Your task to perform on an android device: turn on javascript in the chrome app Image 0: 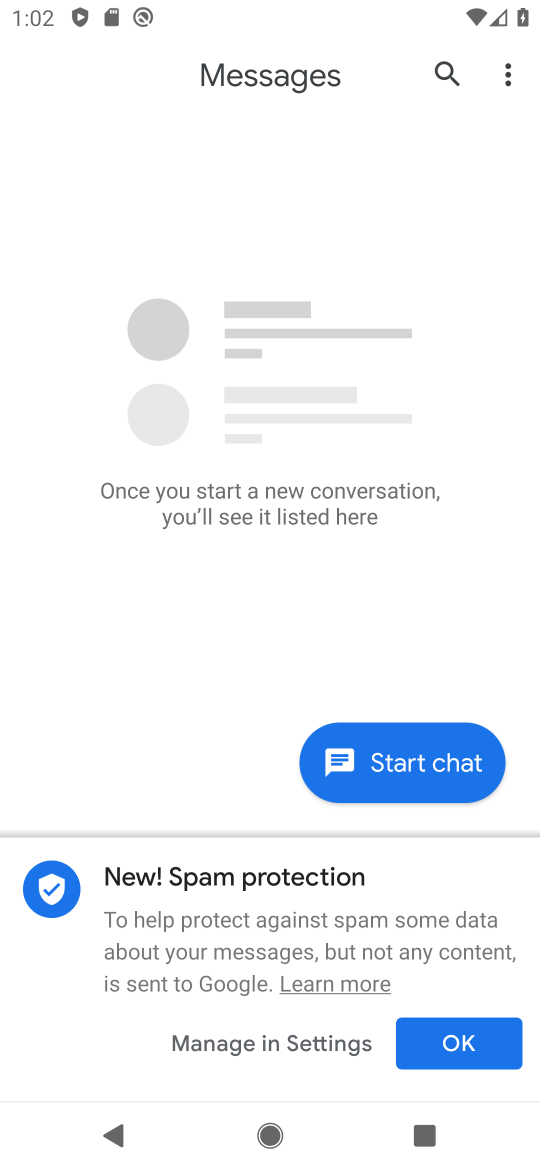
Step 0: drag from (281, 864) to (357, 106)
Your task to perform on an android device: turn on javascript in the chrome app Image 1: 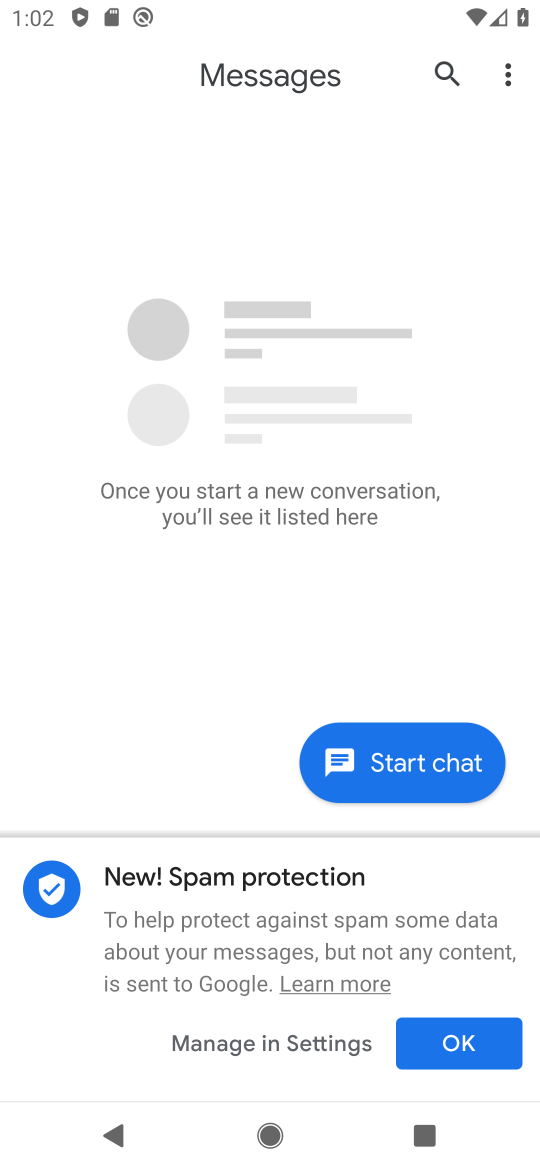
Step 1: drag from (239, 493) to (85, 94)
Your task to perform on an android device: turn on javascript in the chrome app Image 2: 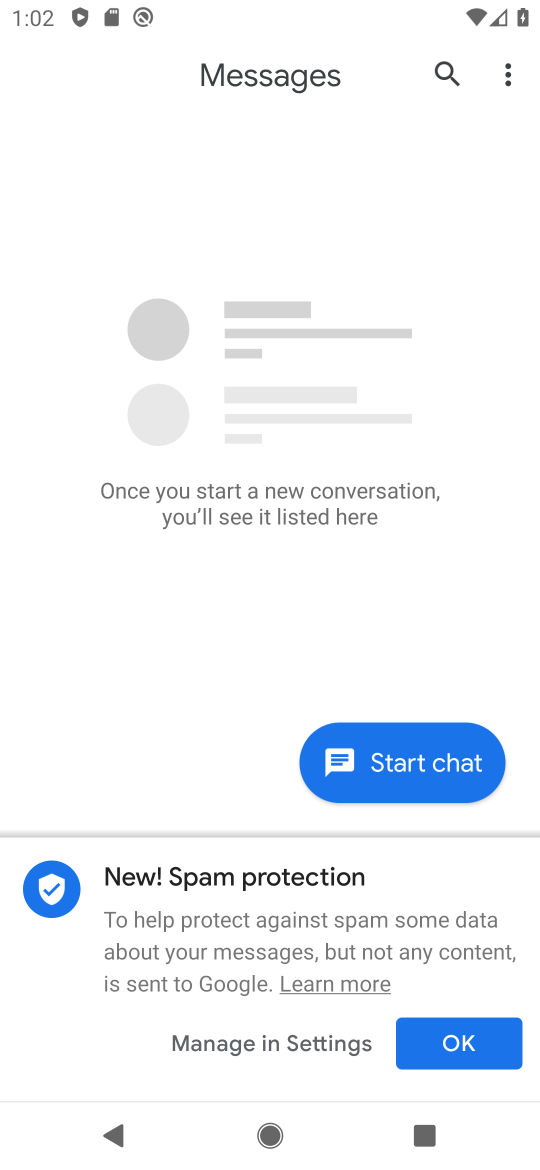
Step 2: drag from (289, 674) to (465, 171)
Your task to perform on an android device: turn on javascript in the chrome app Image 3: 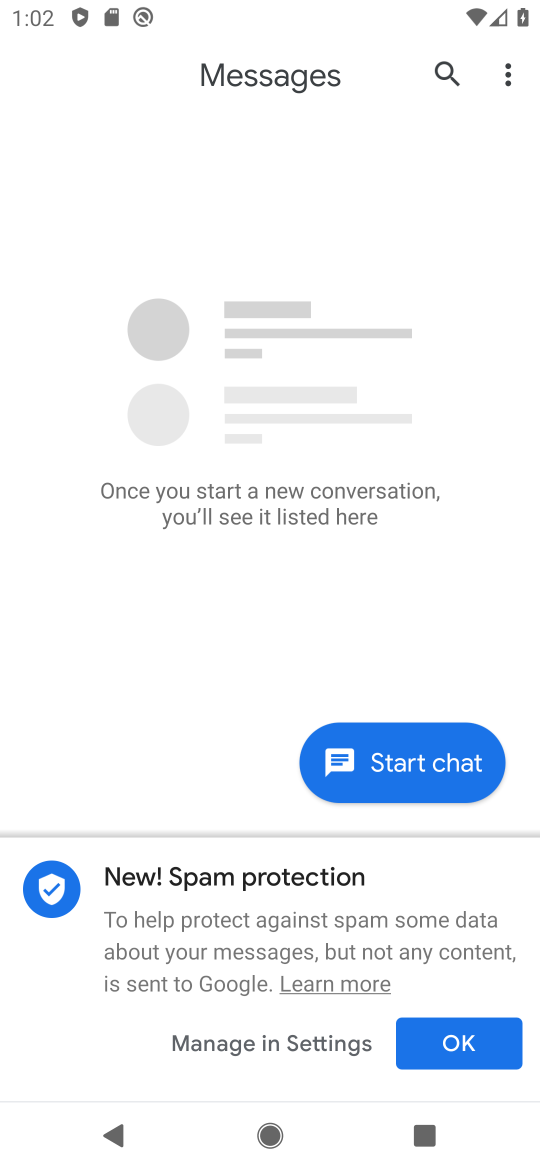
Step 3: press home button
Your task to perform on an android device: turn on javascript in the chrome app Image 4: 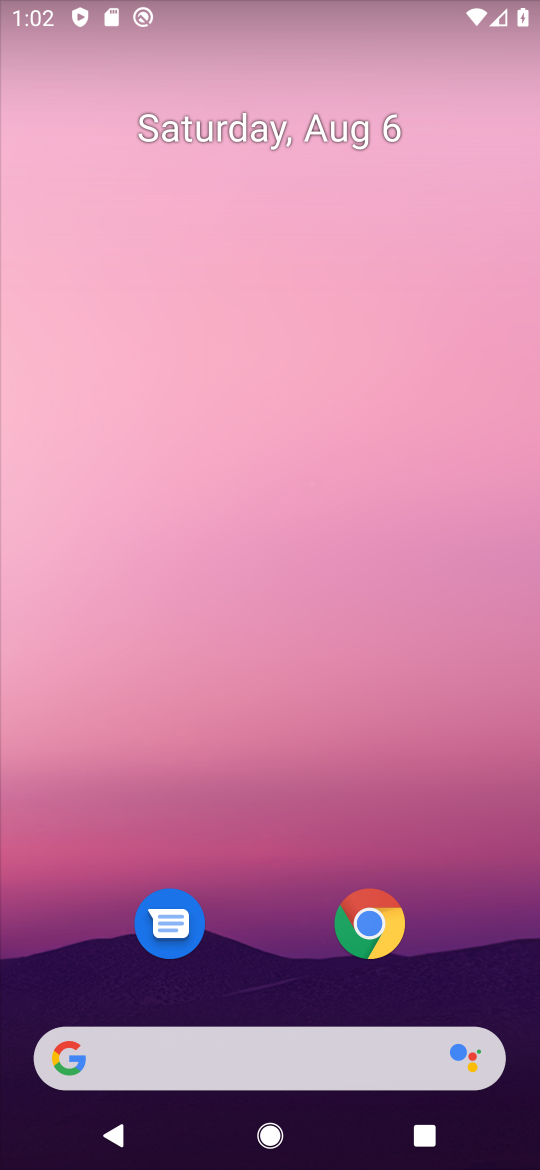
Step 4: drag from (226, 999) to (273, 133)
Your task to perform on an android device: turn on javascript in the chrome app Image 5: 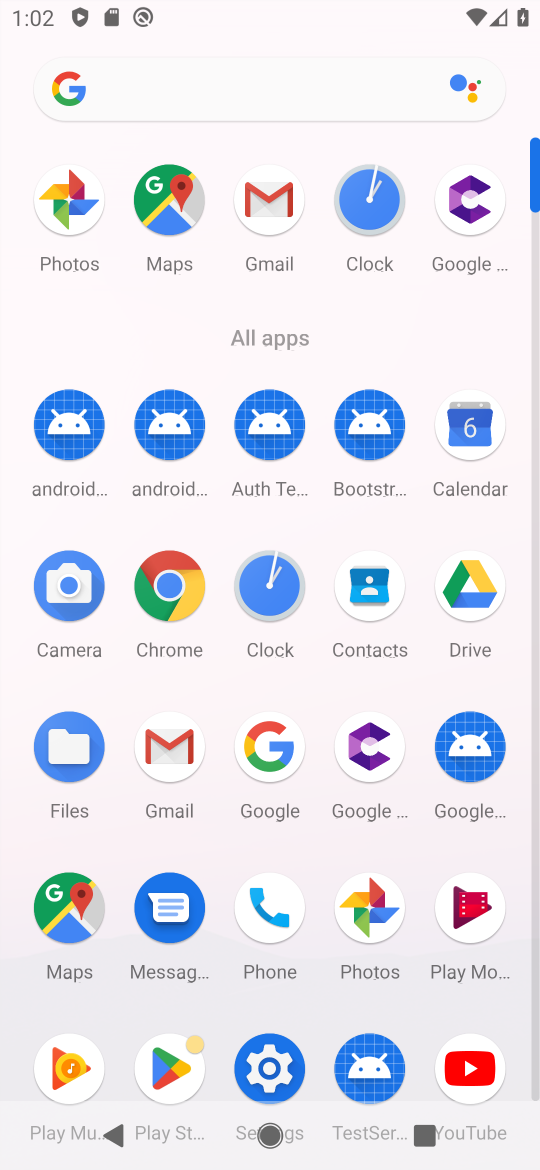
Step 5: click (163, 584)
Your task to perform on an android device: turn on javascript in the chrome app Image 6: 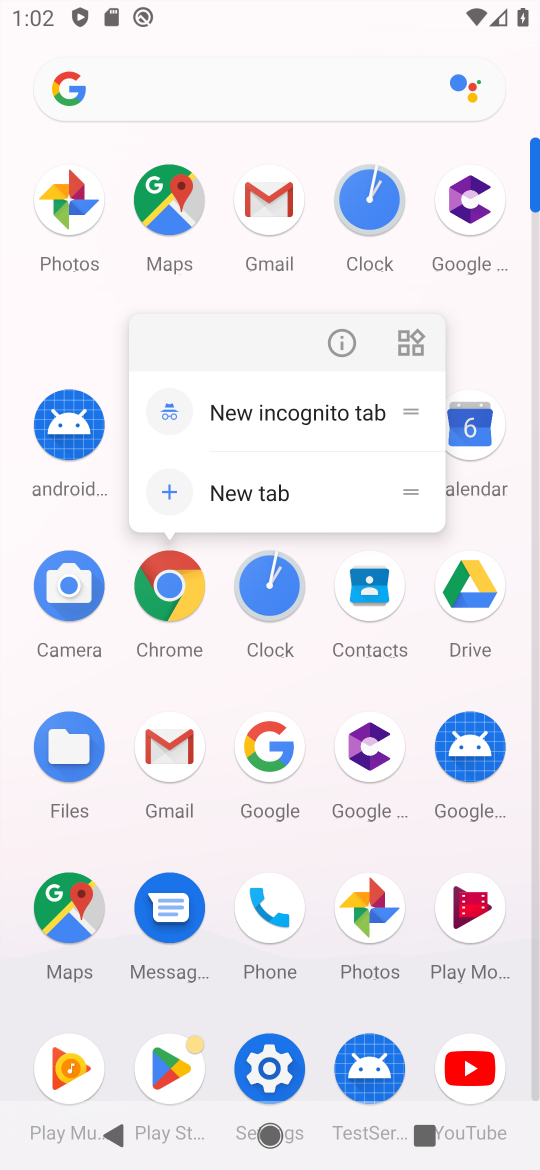
Step 6: click (338, 346)
Your task to perform on an android device: turn on javascript in the chrome app Image 7: 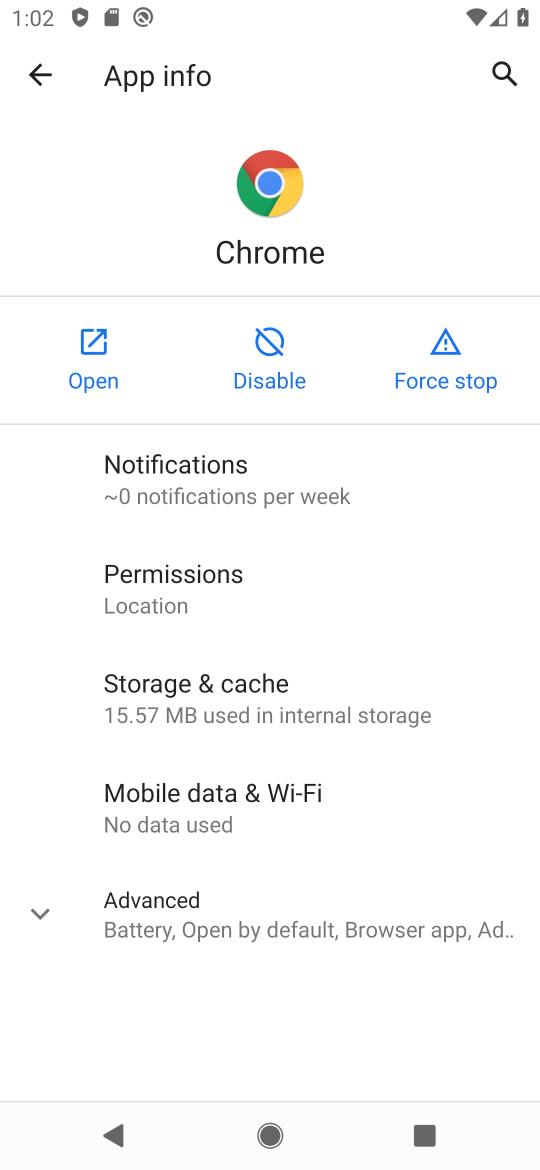
Step 7: click (64, 361)
Your task to perform on an android device: turn on javascript in the chrome app Image 8: 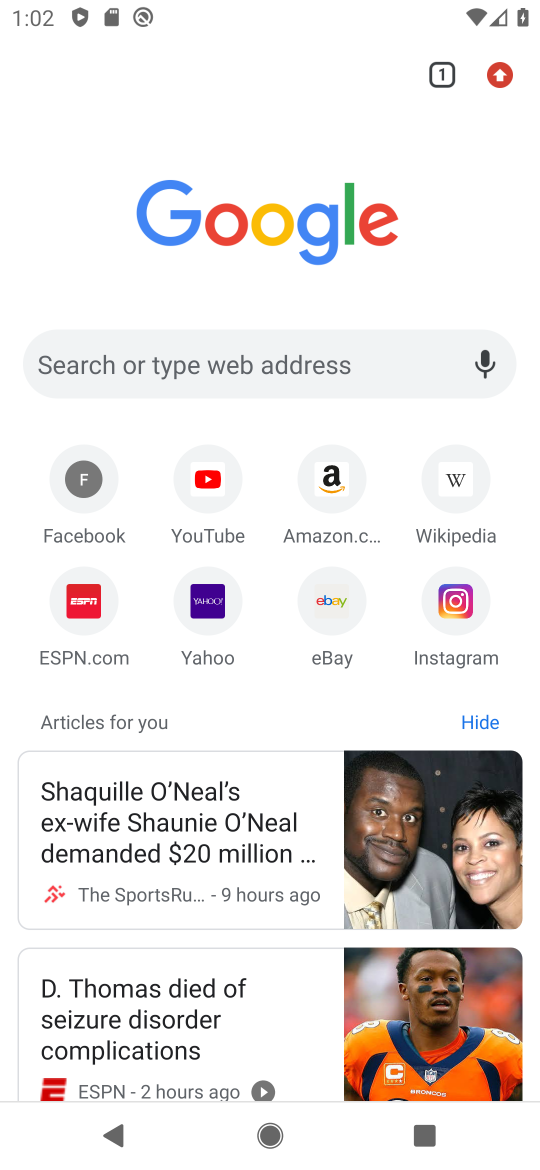
Step 8: drag from (505, 76) to (230, 703)
Your task to perform on an android device: turn on javascript in the chrome app Image 9: 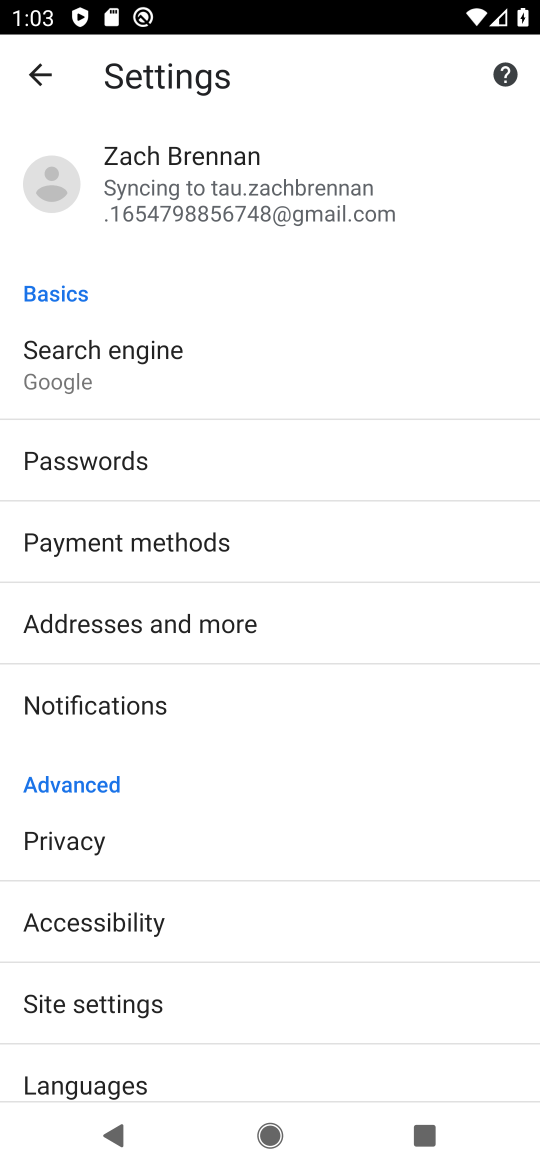
Step 9: drag from (218, 952) to (313, 298)
Your task to perform on an android device: turn on javascript in the chrome app Image 10: 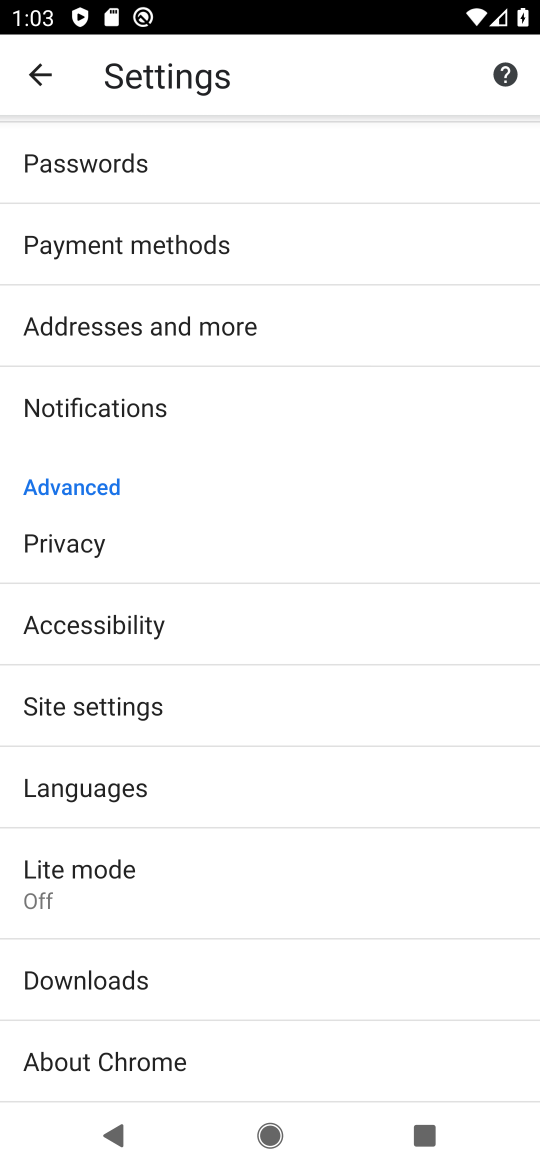
Step 10: click (133, 682)
Your task to perform on an android device: turn on javascript in the chrome app Image 11: 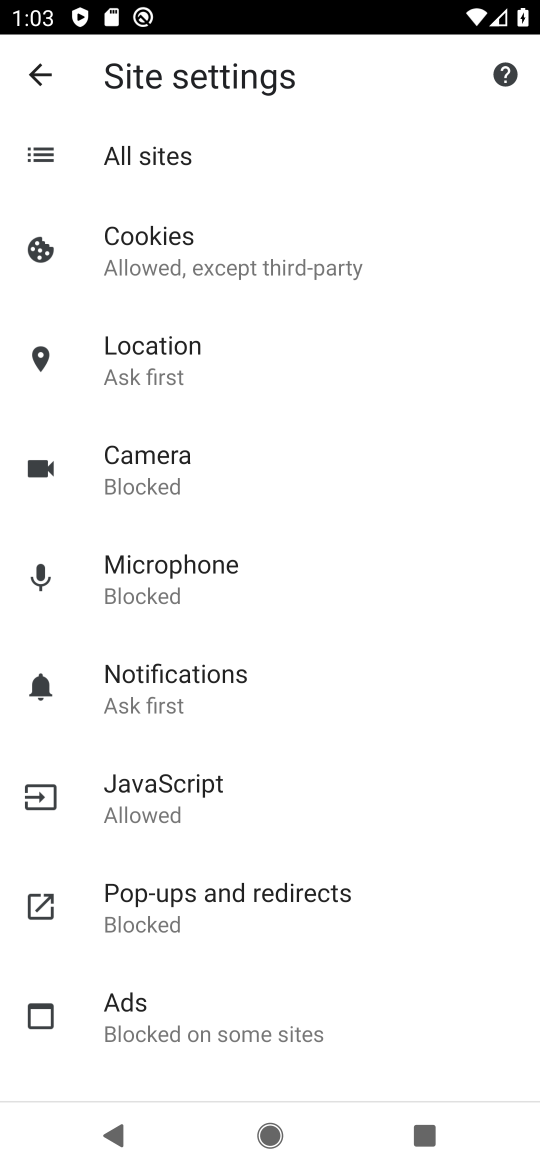
Step 11: click (174, 791)
Your task to perform on an android device: turn on javascript in the chrome app Image 12: 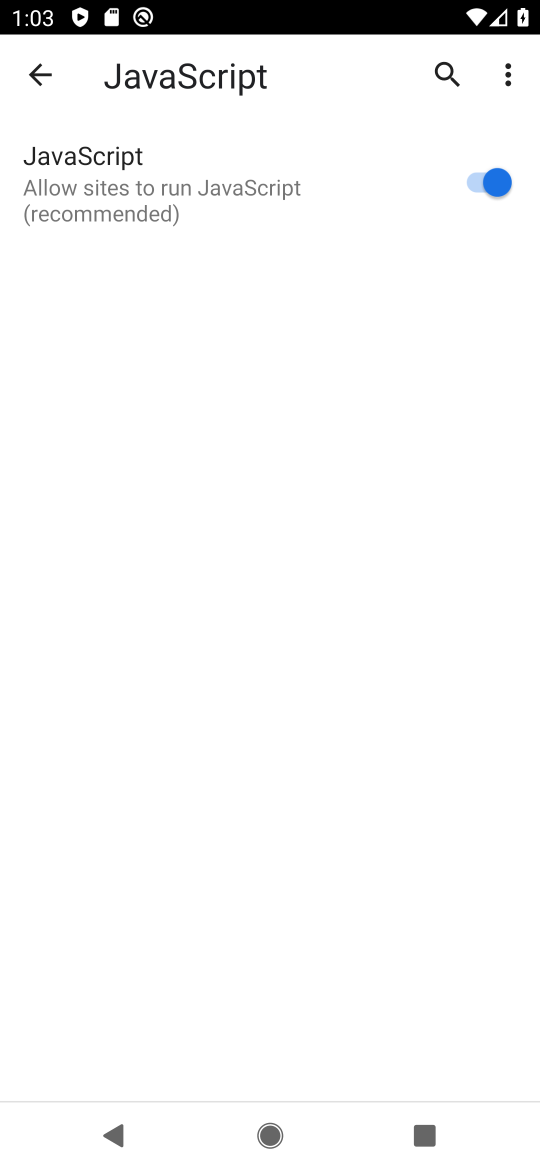
Step 12: task complete